Your task to perform on an android device: toggle priority inbox in the gmail app Image 0: 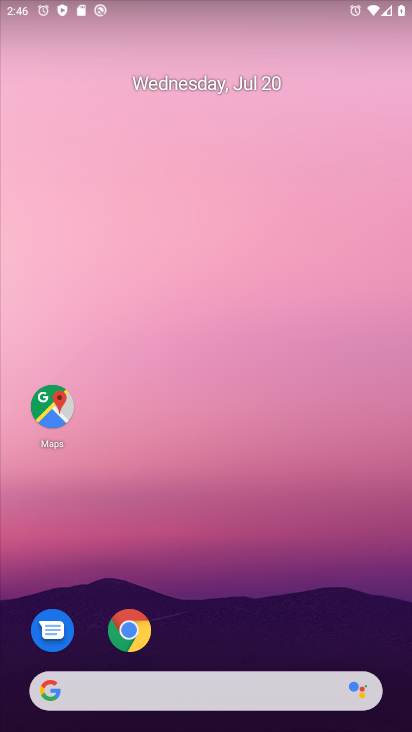
Step 0: press home button
Your task to perform on an android device: toggle priority inbox in the gmail app Image 1: 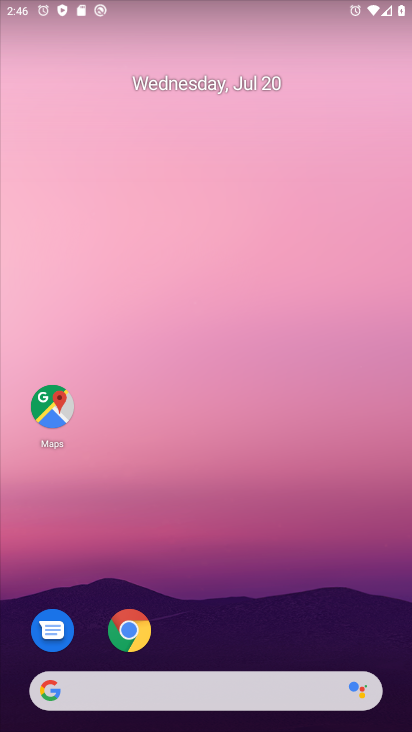
Step 1: drag from (84, 495) to (263, 213)
Your task to perform on an android device: toggle priority inbox in the gmail app Image 2: 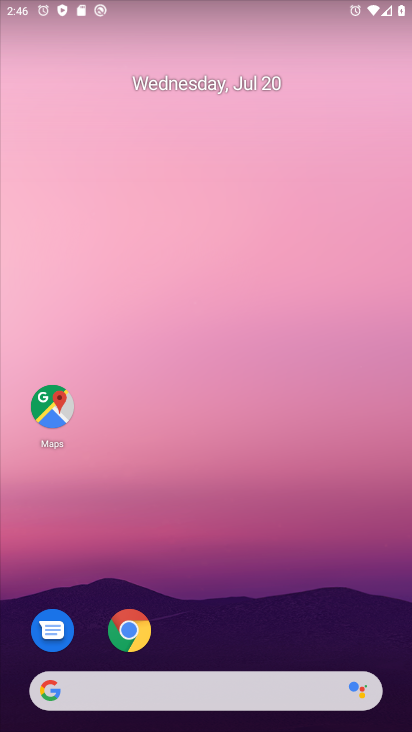
Step 2: drag from (11, 690) to (352, 150)
Your task to perform on an android device: toggle priority inbox in the gmail app Image 3: 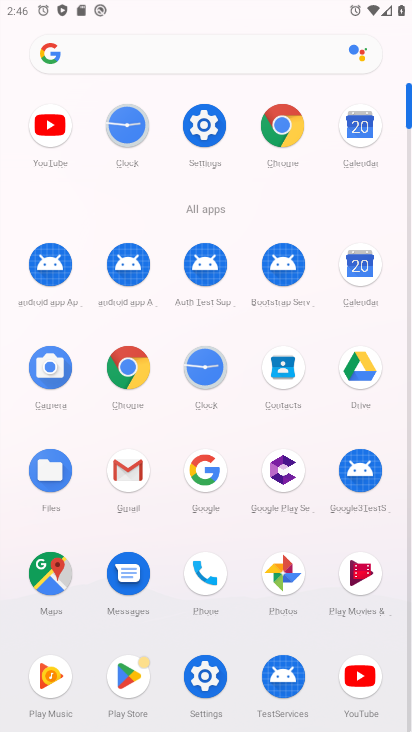
Step 3: click (132, 477)
Your task to perform on an android device: toggle priority inbox in the gmail app Image 4: 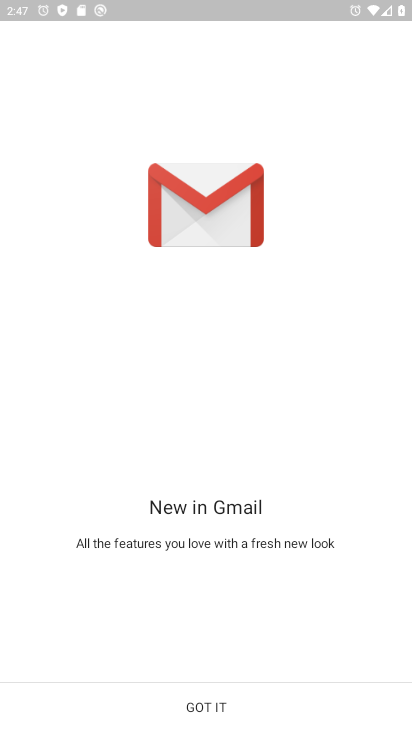
Step 4: click (173, 723)
Your task to perform on an android device: toggle priority inbox in the gmail app Image 5: 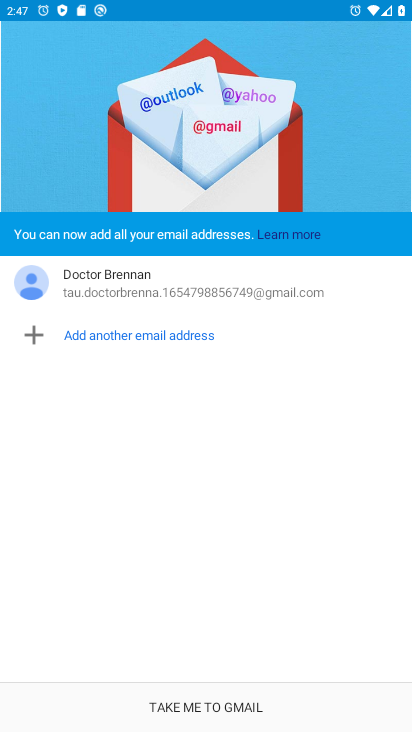
Step 5: click (164, 707)
Your task to perform on an android device: toggle priority inbox in the gmail app Image 6: 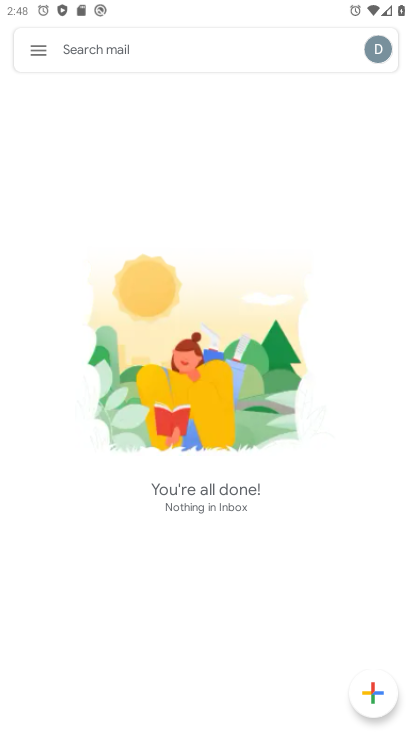
Step 6: click (33, 50)
Your task to perform on an android device: toggle priority inbox in the gmail app Image 7: 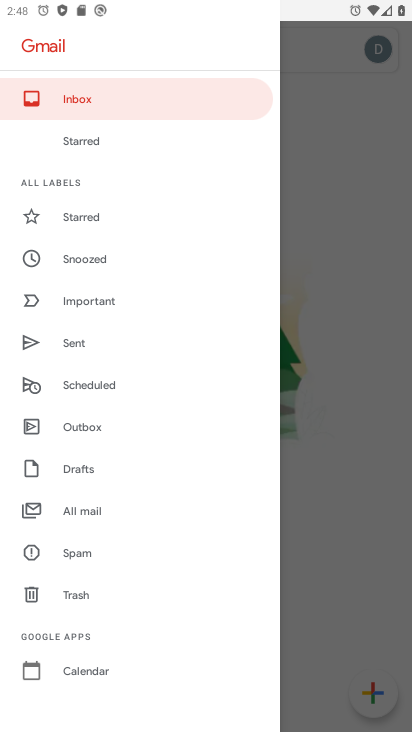
Step 7: drag from (72, 675) to (185, 184)
Your task to perform on an android device: toggle priority inbox in the gmail app Image 8: 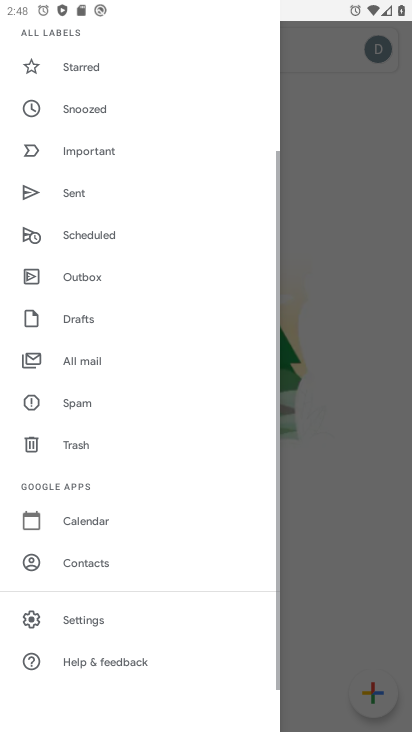
Step 8: click (112, 613)
Your task to perform on an android device: toggle priority inbox in the gmail app Image 9: 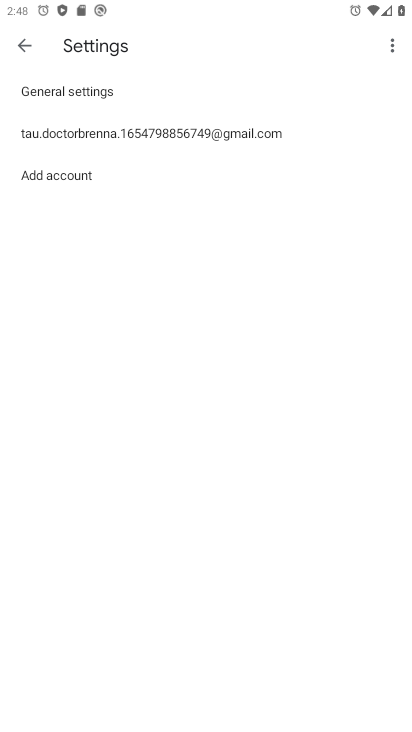
Step 9: click (133, 133)
Your task to perform on an android device: toggle priority inbox in the gmail app Image 10: 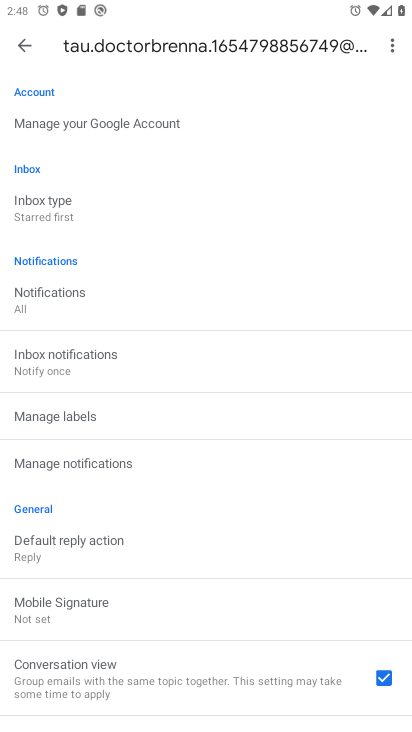
Step 10: click (77, 210)
Your task to perform on an android device: toggle priority inbox in the gmail app Image 11: 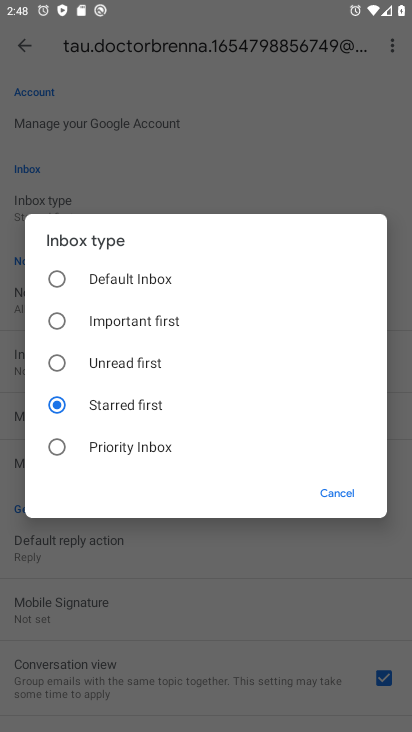
Step 11: click (118, 452)
Your task to perform on an android device: toggle priority inbox in the gmail app Image 12: 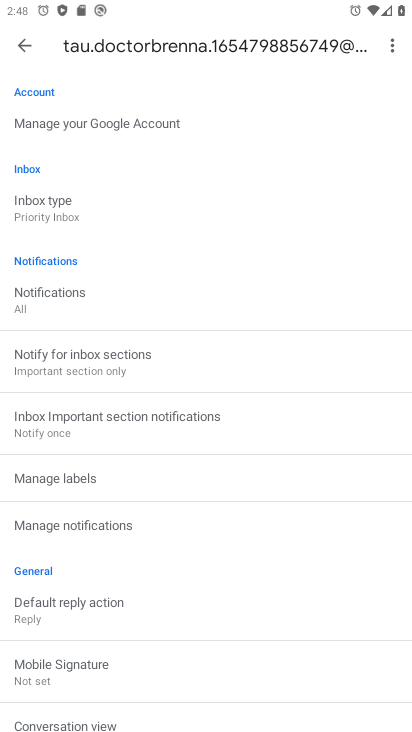
Step 12: task complete